Your task to perform on an android device: turn off smart reply in the gmail app Image 0: 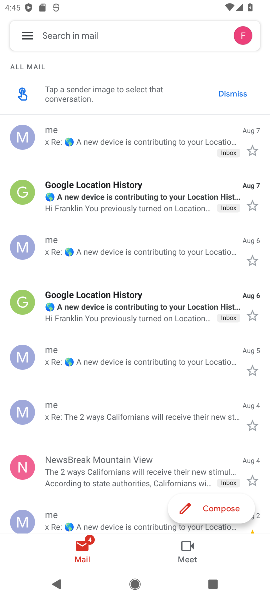
Step 0: press home button
Your task to perform on an android device: turn off smart reply in the gmail app Image 1: 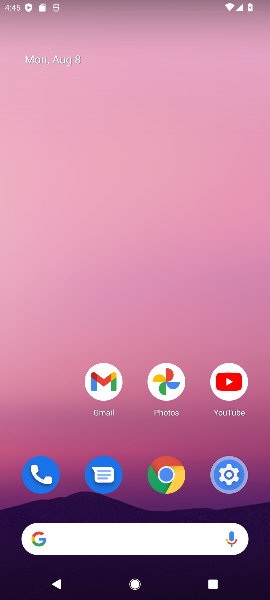
Step 1: drag from (64, 429) to (68, 179)
Your task to perform on an android device: turn off smart reply in the gmail app Image 2: 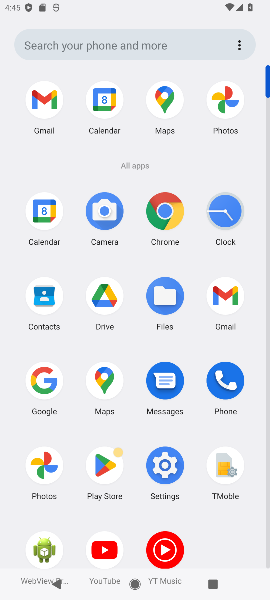
Step 2: click (227, 297)
Your task to perform on an android device: turn off smart reply in the gmail app Image 3: 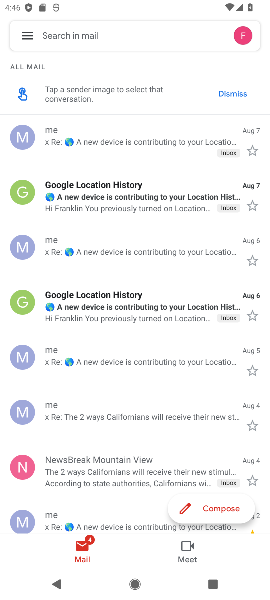
Step 3: click (24, 31)
Your task to perform on an android device: turn off smart reply in the gmail app Image 4: 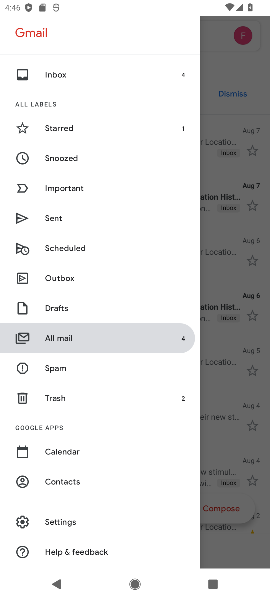
Step 4: drag from (127, 389) to (142, 279)
Your task to perform on an android device: turn off smart reply in the gmail app Image 5: 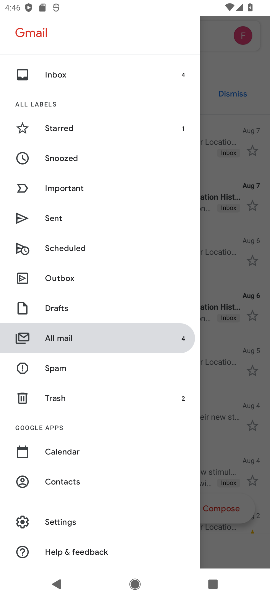
Step 5: click (74, 519)
Your task to perform on an android device: turn off smart reply in the gmail app Image 6: 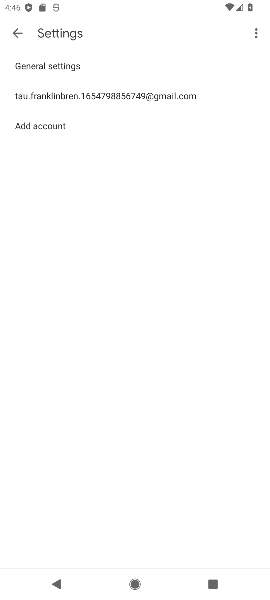
Step 6: click (115, 94)
Your task to perform on an android device: turn off smart reply in the gmail app Image 7: 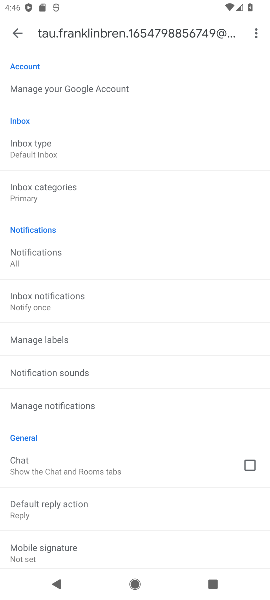
Step 7: drag from (158, 313) to (176, 254)
Your task to perform on an android device: turn off smart reply in the gmail app Image 8: 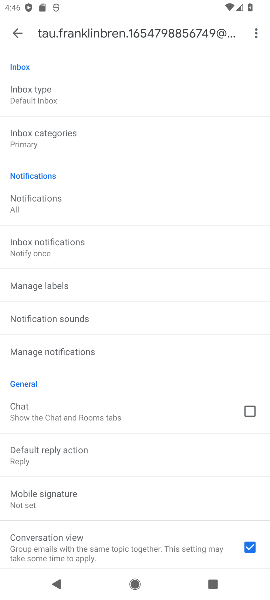
Step 8: drag from (180, 349) to (183, 286)
Your task to perform on an android device: turn off smart reply in the gmail app Image 9: 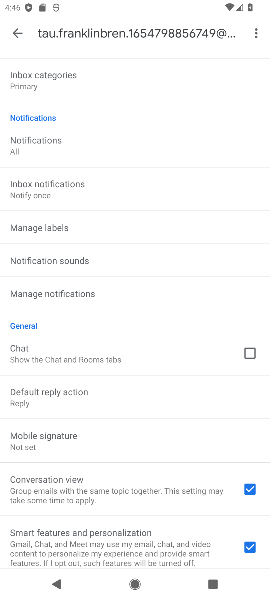
Step 9: drag from (180, 384) to (181, 294)
Your task to perform on an android device: turn off smart reply in the gmail app Image 10: 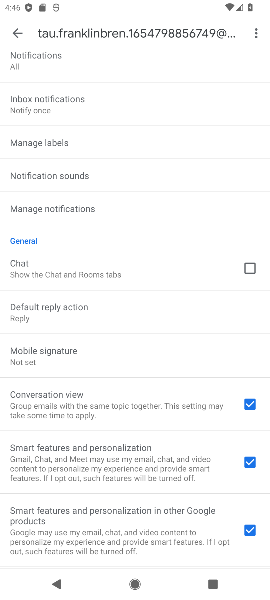
Step 10: drag from (185, 401) to (182, 291)
Your task to perform on an android device: turn off smart reply in the gmail app Image 11: 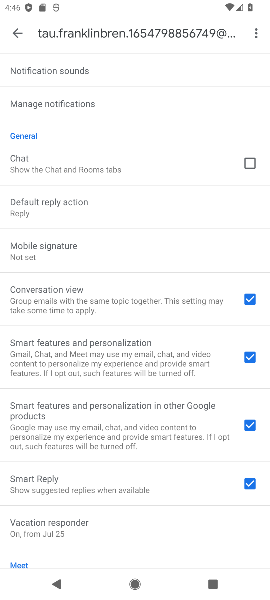
Step 11: drag from (185, 397) to (186, 319)
Your task to perform on an android device: turn off smart reply in the gmail app Image 12: 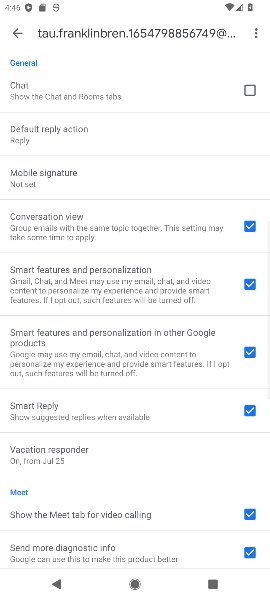
Step 12: drag from (183, 407) to (183, 307)
Your task to perform on an android device: turn off smart reply in the gmail app Image 13: 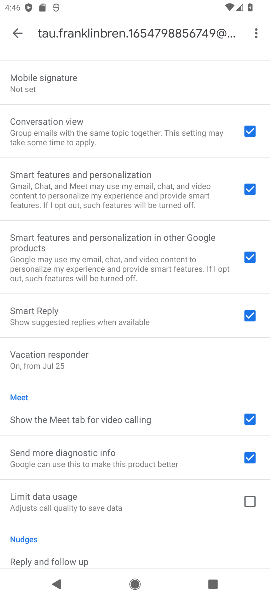
Step 13: click (251, 313)
Your task to perform on an android device: turn off smart reply in the gmail app Image 14: 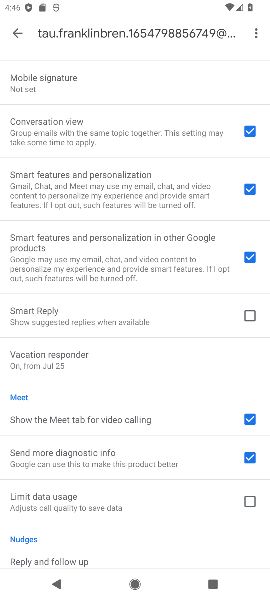
Step 14: task complete